Your task to perform on an android device: change timer sound Image 0: 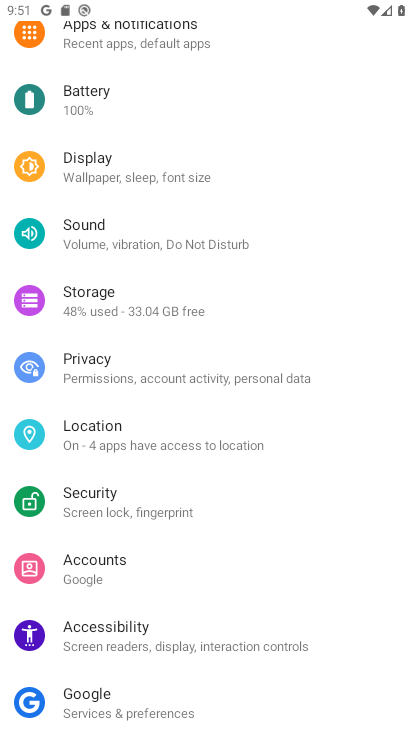
Step 0: press home button
Your task to perform on an android device: change timer sound Image 1: 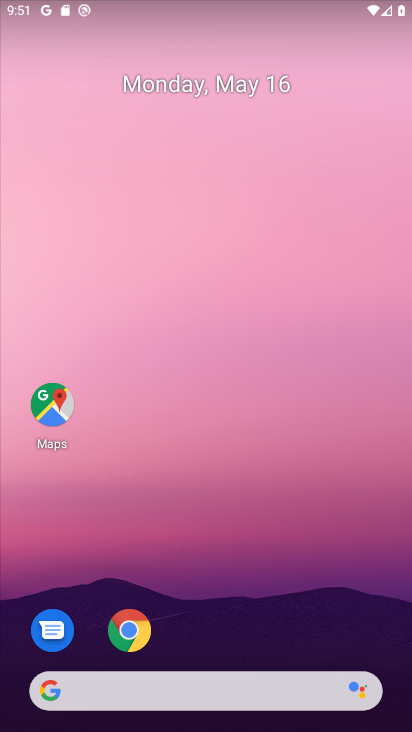
Step 1: drag from (257, 587) to (257, 98)
Your task to perform on an android device: change timer sound Image 2: 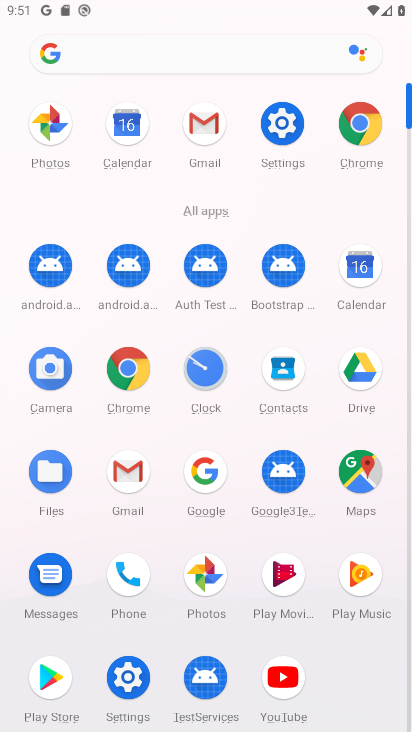
Step 2: click (369, 267)
Your task to perform on an android device: change timer sound Image 3: 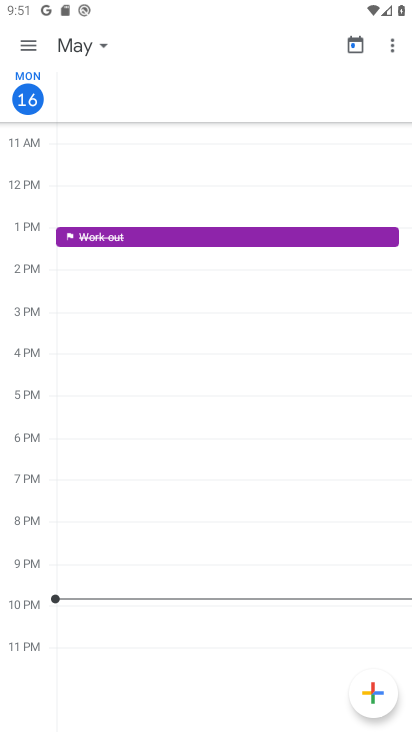
Step 3: press home button
Your task to perform on an android device: change timer sound Image 4: 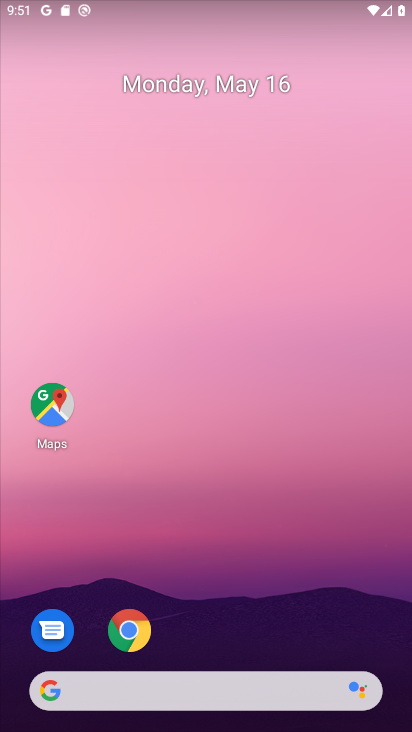
Step 4: drag from (225, 502) to (257, 55)
Your task to perform on an android device: change timer sound Image 5: 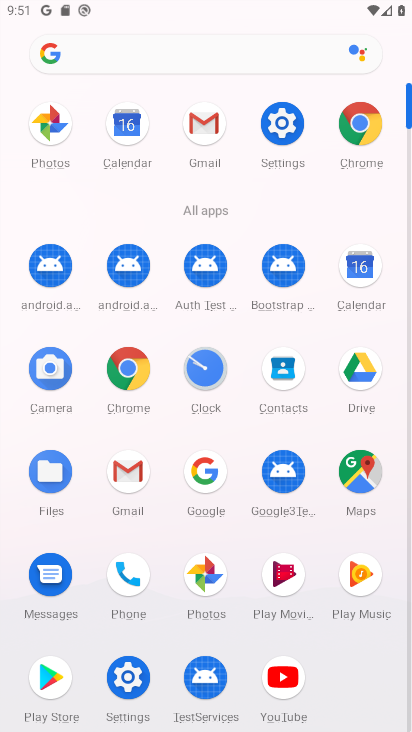
Step 5: click (213, 363)
Your task to perform on an android device: change timer sound Image 6: 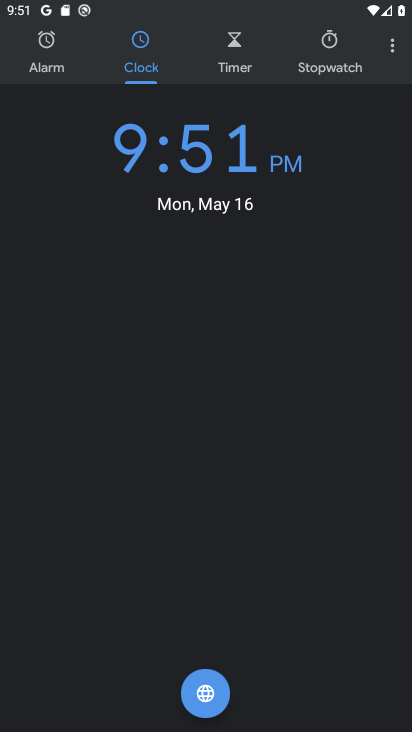
Step 6: click (391, 39)
Your task to perform on an android device: change timer sound Image 7: 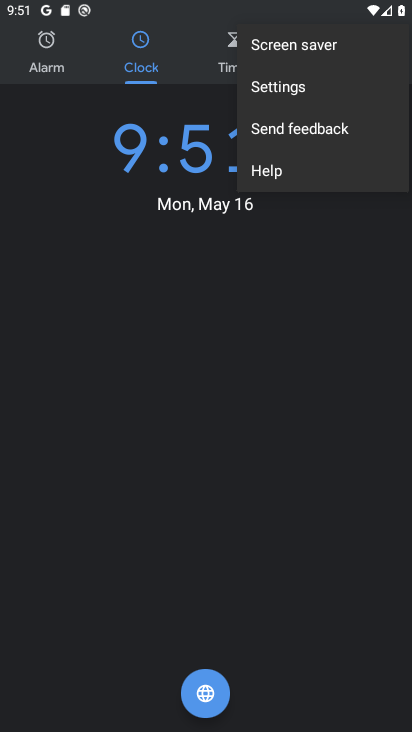
Step 7: click (336, 87)
Your task to perform on an android device: change timer sound Image 8: 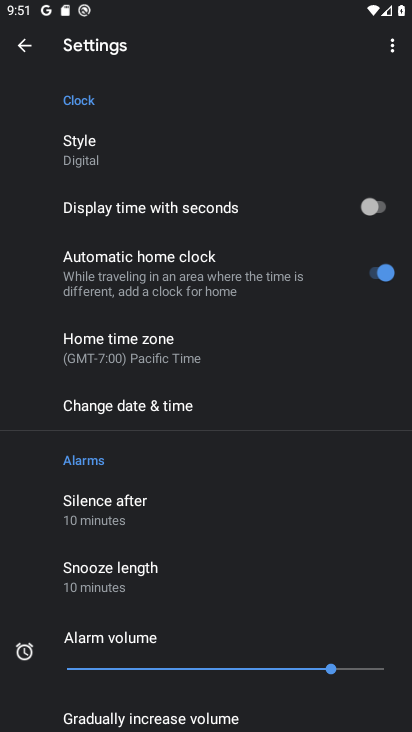
Step 8: drag from (188, 535) to (256, 124)
Your task to perform on an android device: change timer sound Image 9: 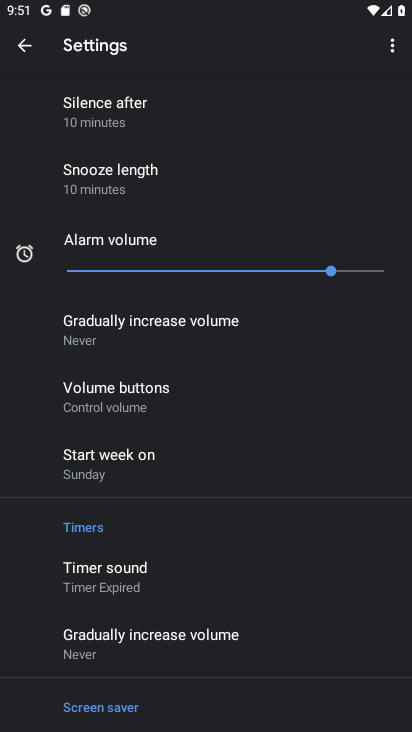
Step 9: click (180, 576)
Your task to perform on an android device: change timer sound Image 10: 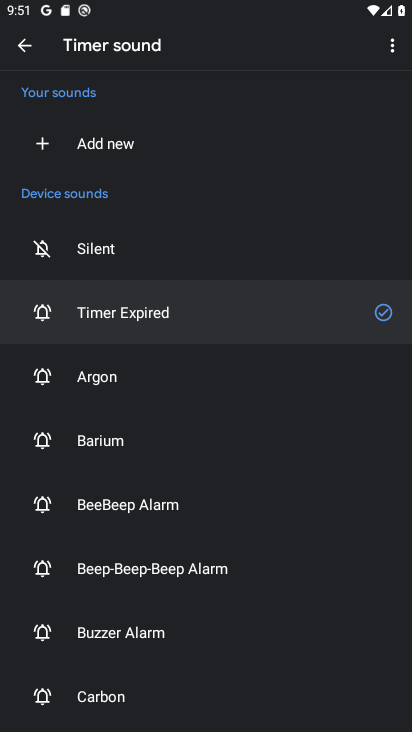
Step 10: click (110, 381)
Your task to perform on an android device: change timer sound Image 11: 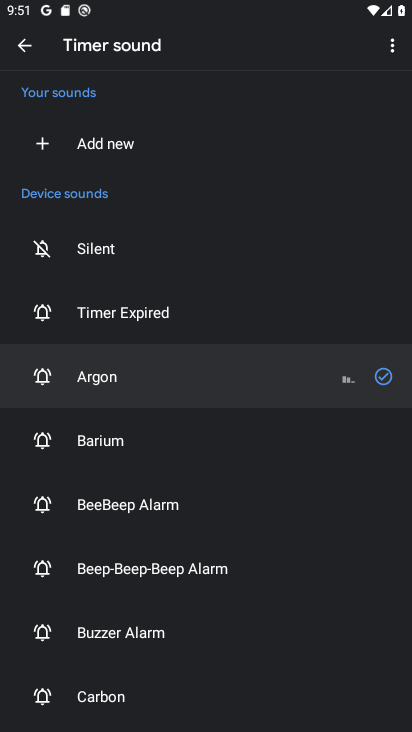
Step 11: task complete